Your task to perform on an android device: Open CNN.com Image 0: 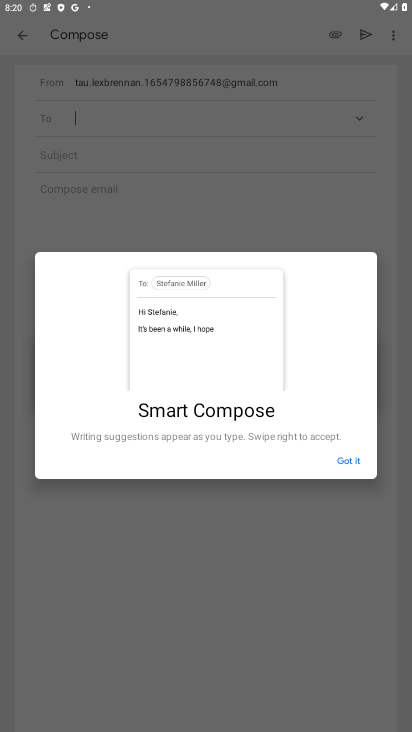
Step 0: click (339, 457)
Your task to perform on an android device: Open CNN.com Image 1: 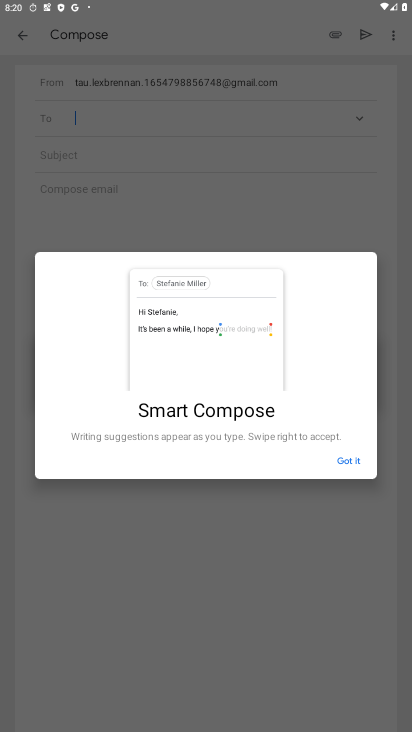
Step 1: click (343, 462)
Your task to perform on an android device: Open CNN.com Image 2: 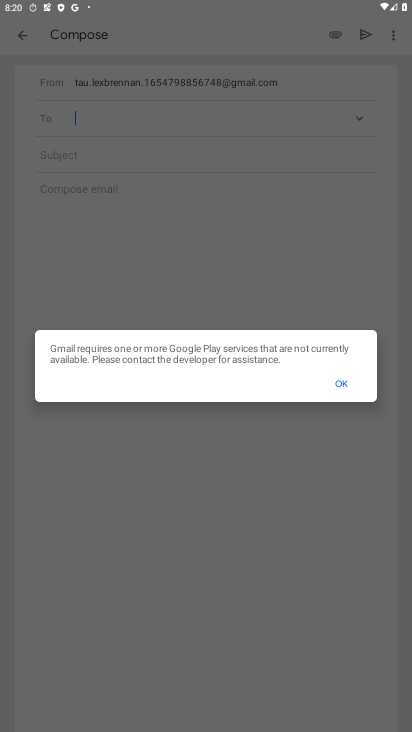
Step 2: click (339, 380)
Your task to perform on an android device: Open CNN.com Image 3: 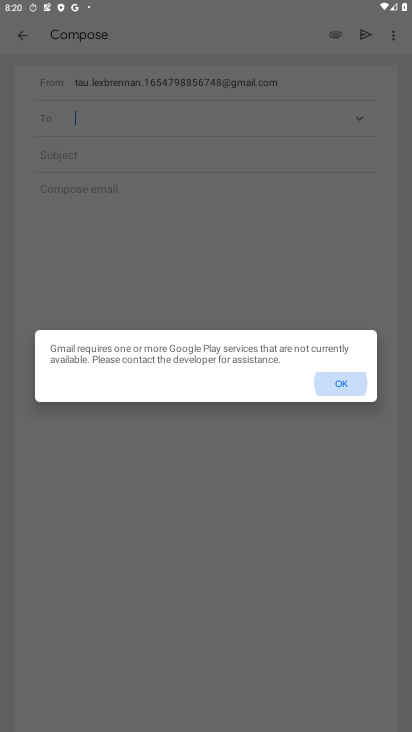
Step 3: click (340, 379)
Your task to perform on an android device: Open CNN.com Image 4: 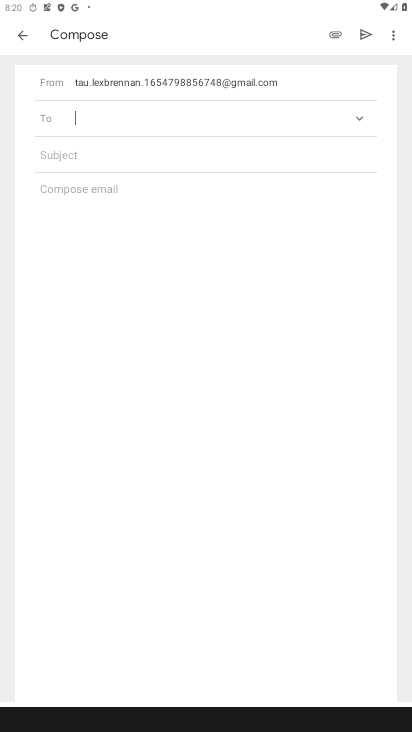
Step 4: click (340, 379)
Your task to perform on an android device: Open CNN.com Image 5: 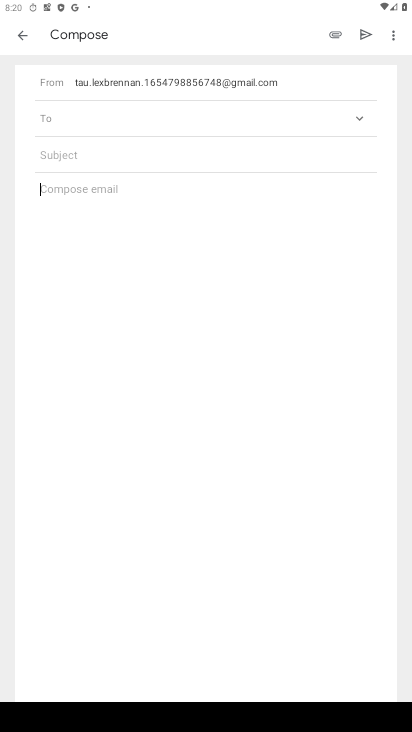
Step 5: press back button
Your task to perform on an android device: Open CNN.com Image 6: 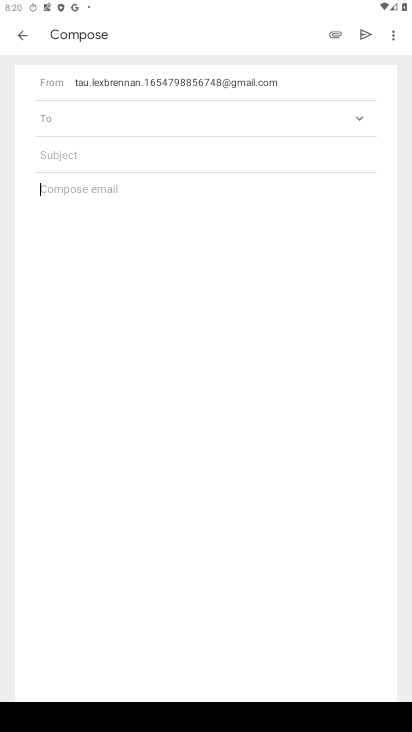
Step 6: press back button
Your task to perform on an android device: Open CNN.com Image 7: 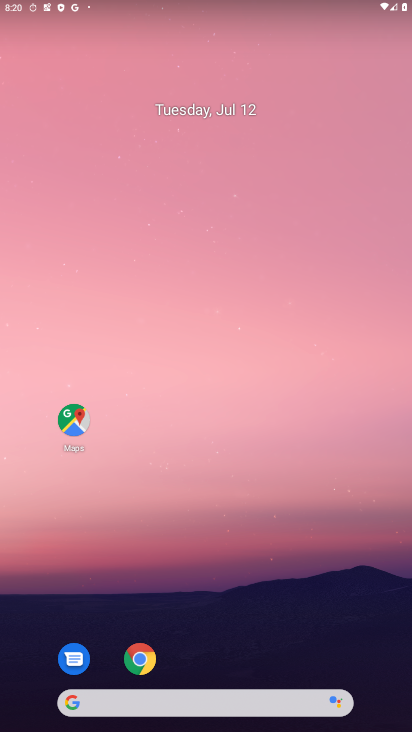
Step 7: drag from (286, 598) to (241, 150)
Your task to perform on an android device: Open CNN.com Image 8: 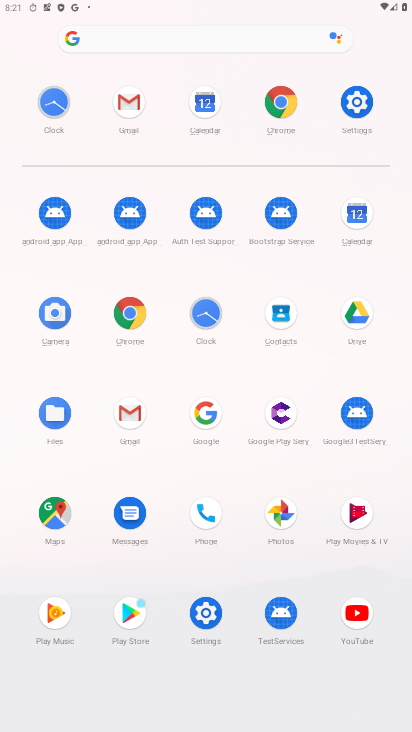
Step 8: click (284, 92)
Your task to perform on an android device: Open CNN.com Image 9: 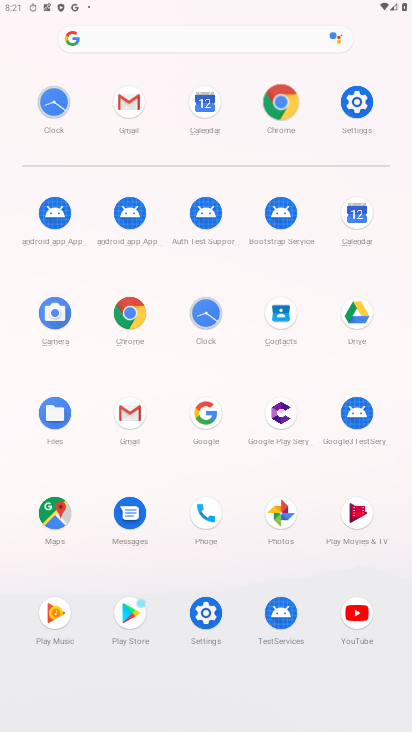
Step 9: click (284, 105)
Your task to perform on an android device: Open CNN.com Image 10: 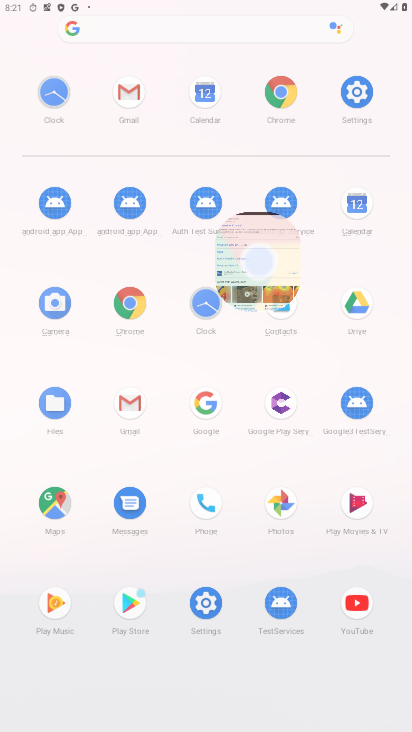
Step 10: click (287, 111)
Your task to perform on an android device: Open CNN.com Image 11: 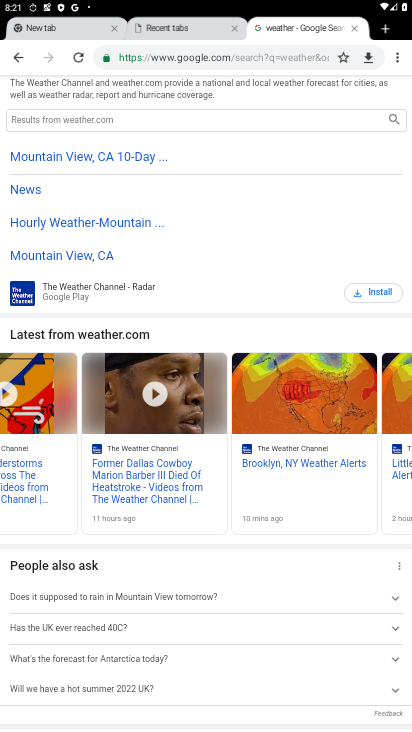
Step 11: press back button
Your task to perform on an android device: Open CNN.com Image 12: 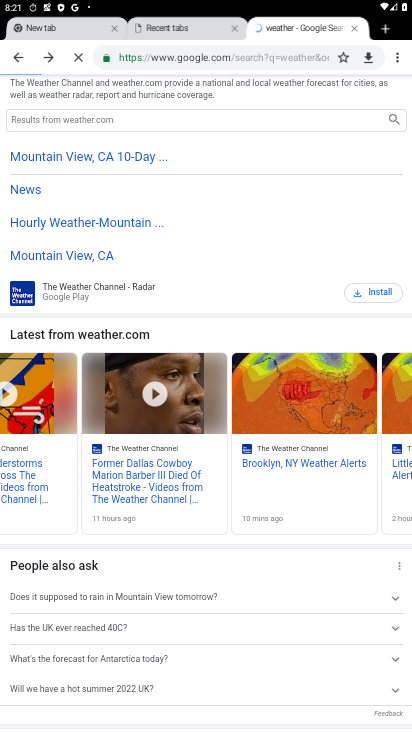
Step 12: press back button
Your task to perform on an android device: Open CNN.com Image 13: 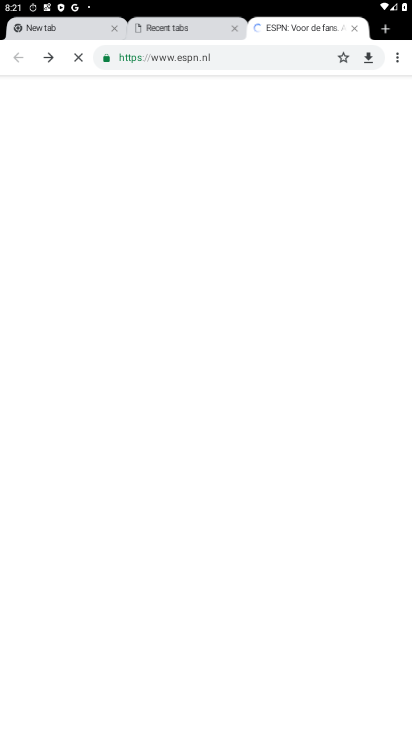
Step 13: press back button
Your task to perform on an android device: Open CNN.com Image 14: 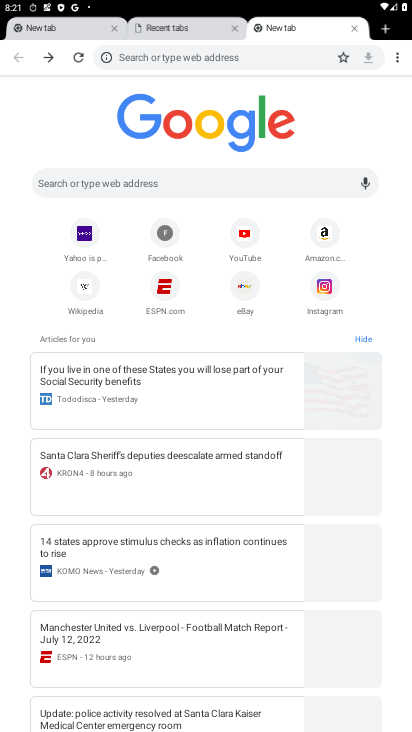
Step 14: press home button
Your task to perform on an android device: Open CNN.com Image 15: 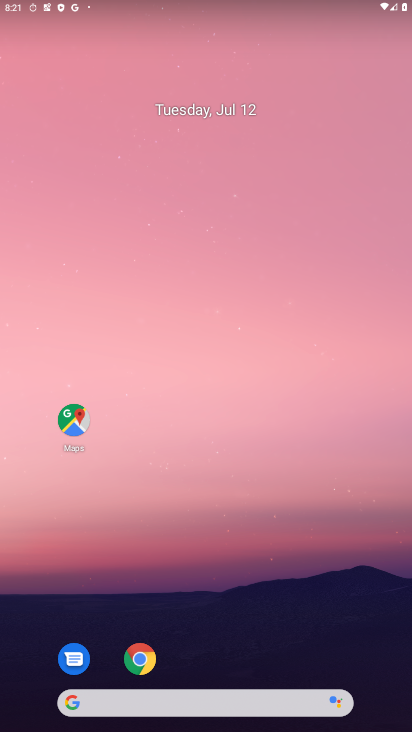
Step 15: drag from (215, 482) to (167, 90)
Your task to perform on an android device: Open CNN.com Image 16: 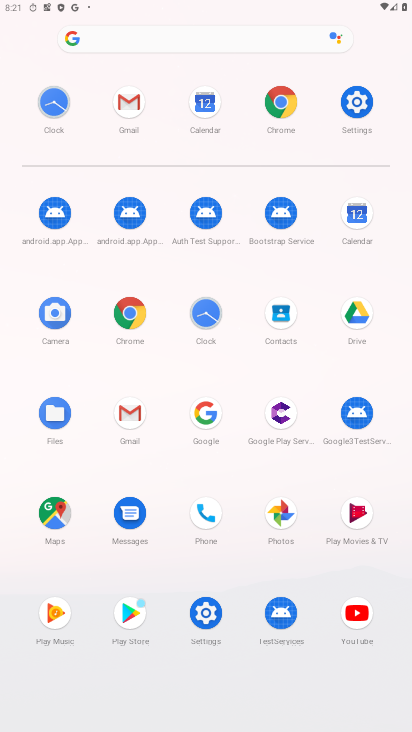
Step 16: click (277, 107)
Your task to perform on an android device: Open CNN.com Image 17: 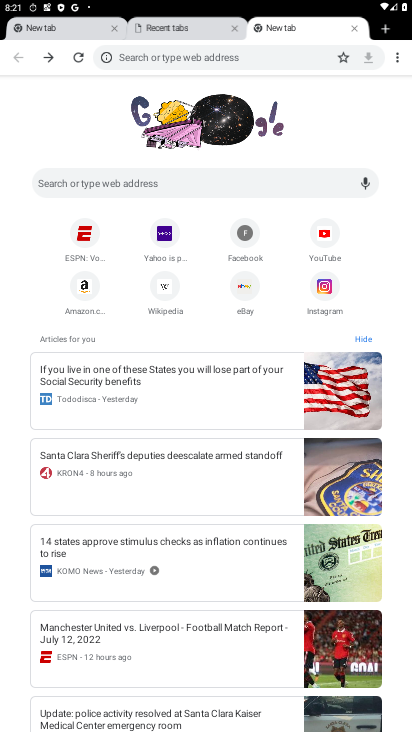
Step 17: click (53, 175)
Your task to perform on an android device: Open CNN.com Image 18: 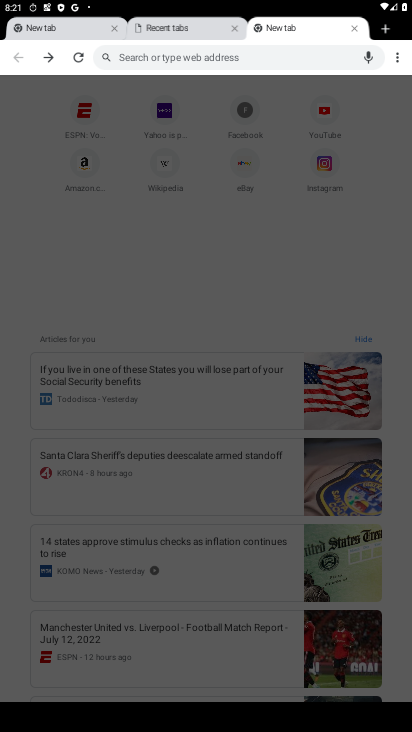
Step 18: type "cnn.com"
Your task to perform on an android device: Open CNN.com Image 19: 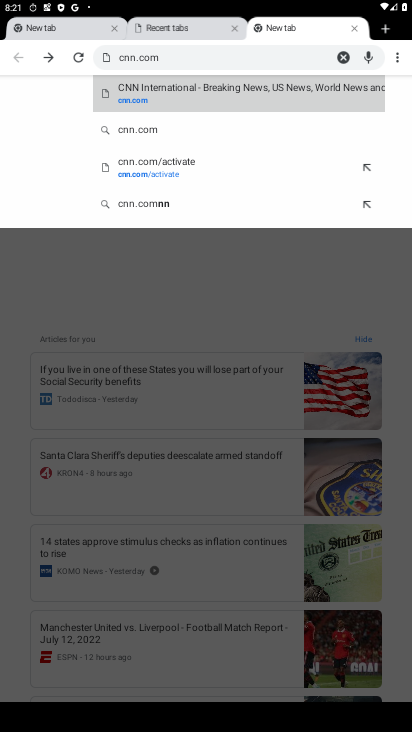
Step 19: click (167, 91)
Your task to perform on an android device: Open CNN.com Image 20: 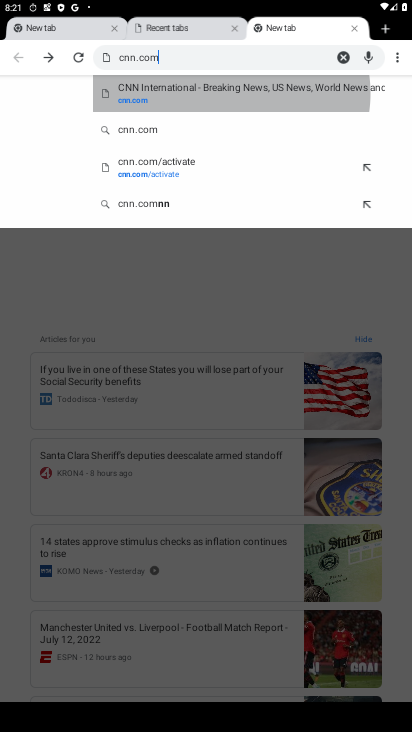
Step 20: click (168, 90)
Your task to perform on an android device: Open CNN.com Image 21: 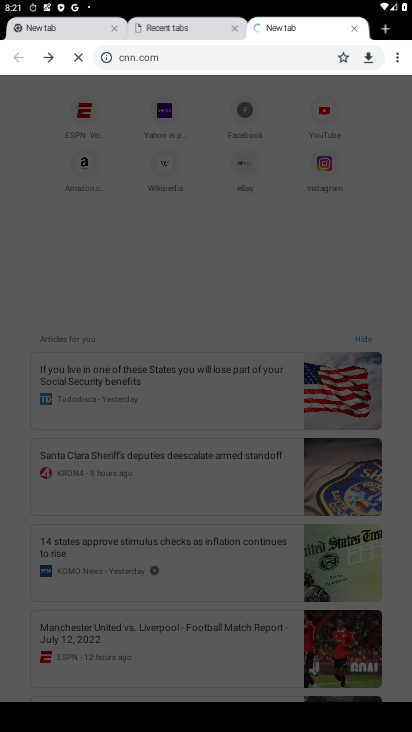
Step 21: click (168, 90)
Your task to perform on an android device: Open CNN.com Image 22: 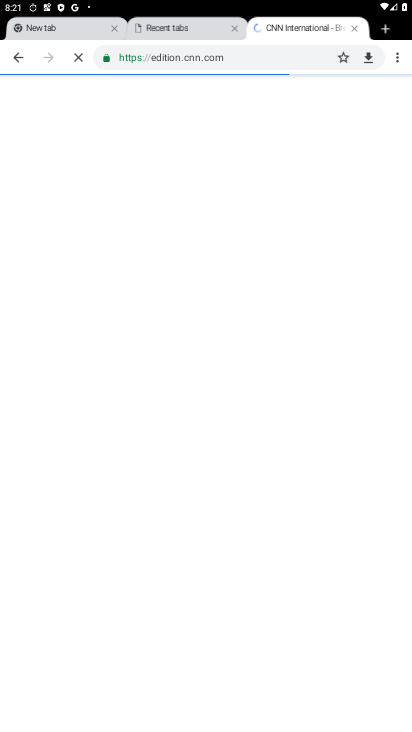
Step 22: task complete